Your task to perform on an android device: Show me popular videos on Youtube Image 0: 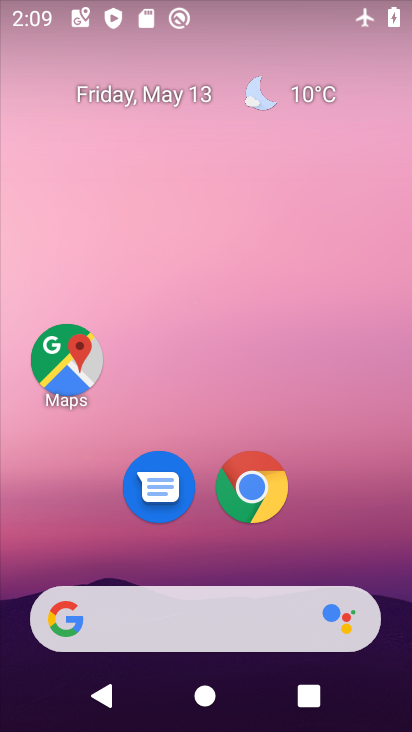
Step 0: drag from (200, 522) to (195, 220)
Your task to perform on an android device: Show me popular videos on Youtube Image 1: 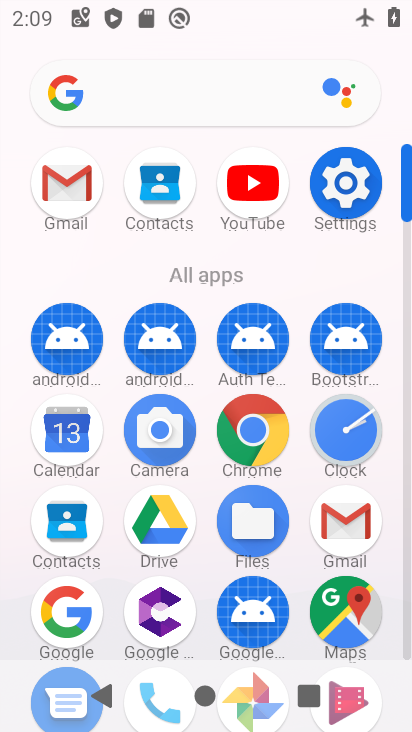
Step 1: click (239, 186)
Your task to perform on an android device: Show me popular videos on Youtube Image 2: 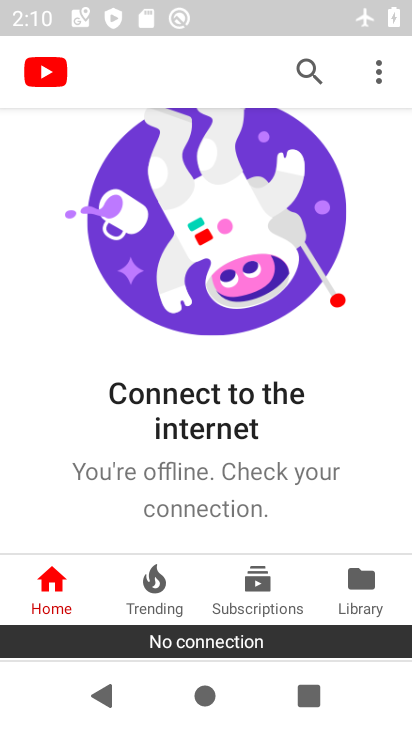
Step 2: click (310, 74)
Your task to perform on an android device: Show me popular videos on Youtube Image 3: 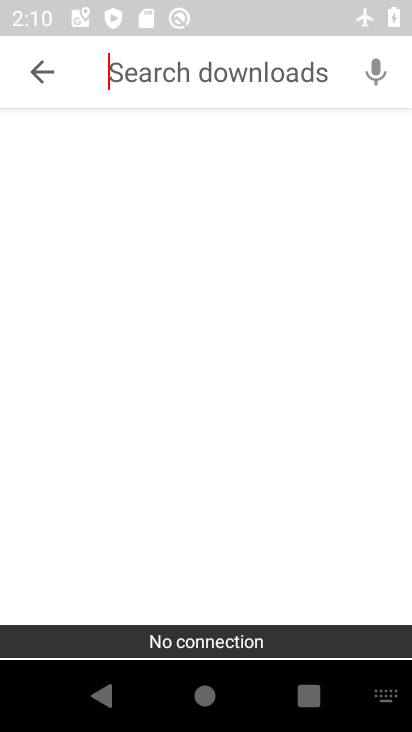
Step 3: task complete